Your task to perform on an android device: snooze an email in the gmail app Image 0: 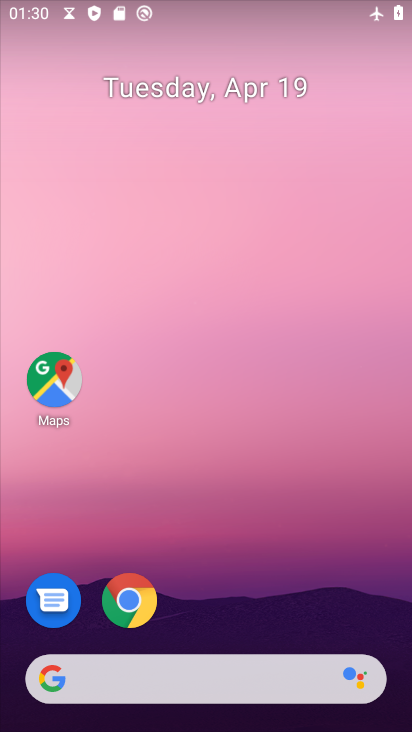
Step 0: drag from (231, 647) to (236, 2)
Your task to perform on an android device: snooze an email in the gmail app Image 1: 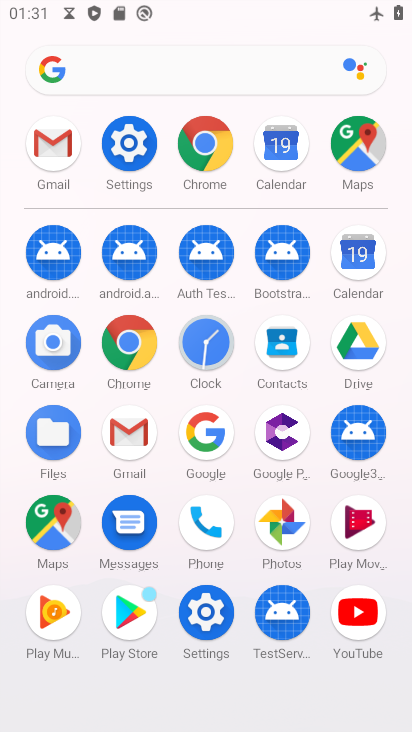
Step 1: click (129, 431)
Your task to perform on an android device: snooze an email in the gmail app Image 2: 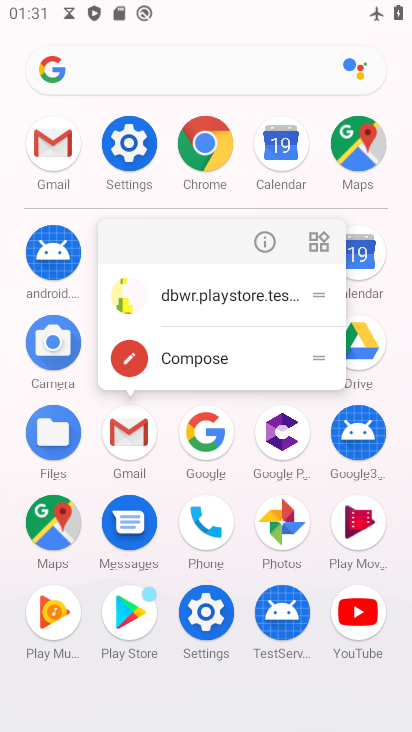
Step 2: click (127, 432)
Your task to perform on an android device: snooze an email in the gmail app Image 3: 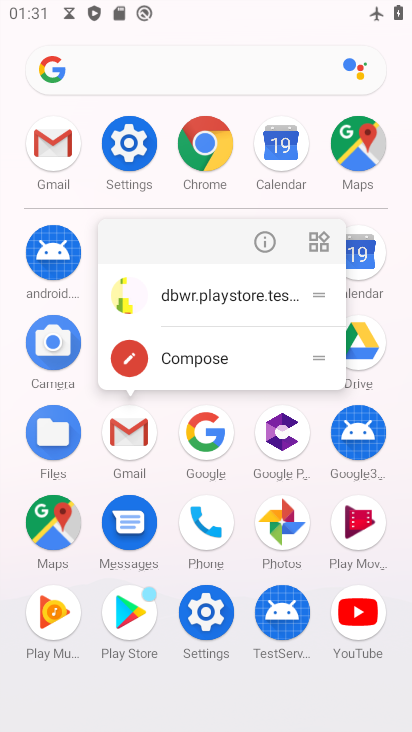
Step 3: click (128, 428)
Your task to perform on an android device: snooze an email in the gmail app Image 4: 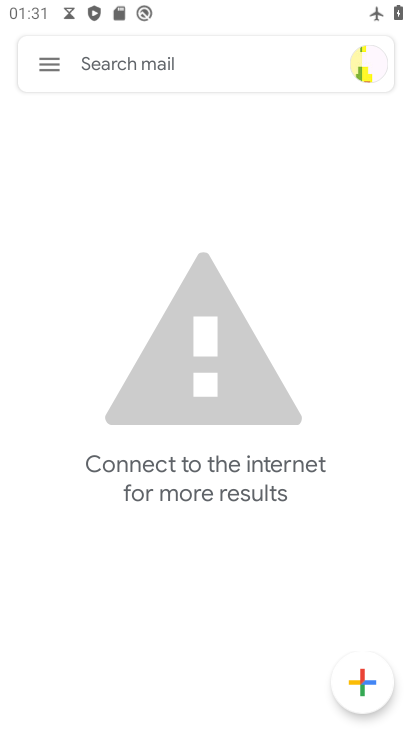
Step 4: task complete